Your task to perform on an android device: turn off location history Image 0: 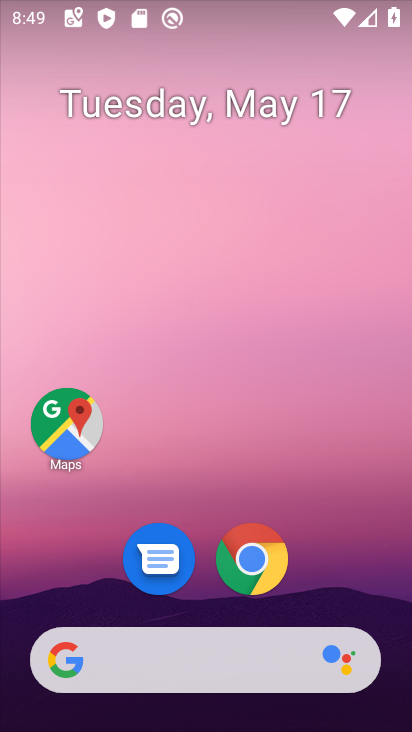
Step 0: drag from (227, 693) to (221, 148)
Your task to perform on an android device: turn off location history Image 1: 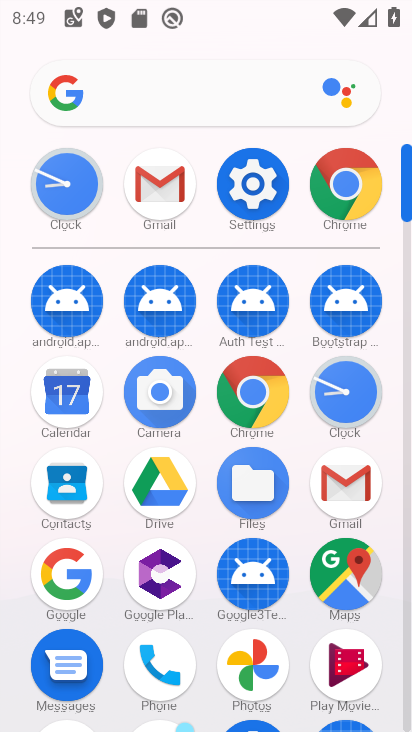
Step 1: click (257, 178)
Your task to perform on an android device: turn off location history Image 2: 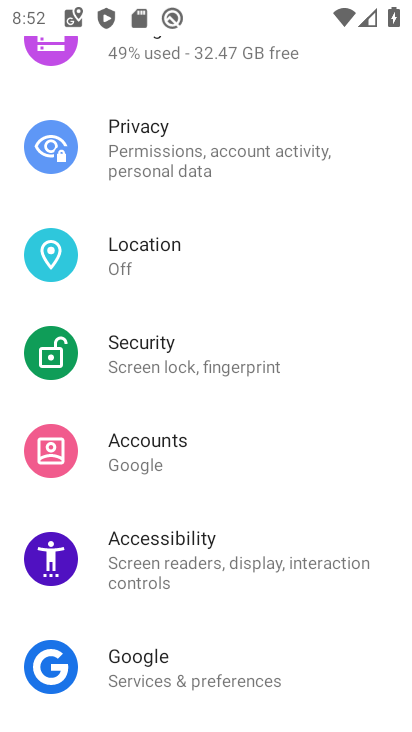
Step 2: click (137, 263)
Your task to perform on an android device: turn off location history Image 3: 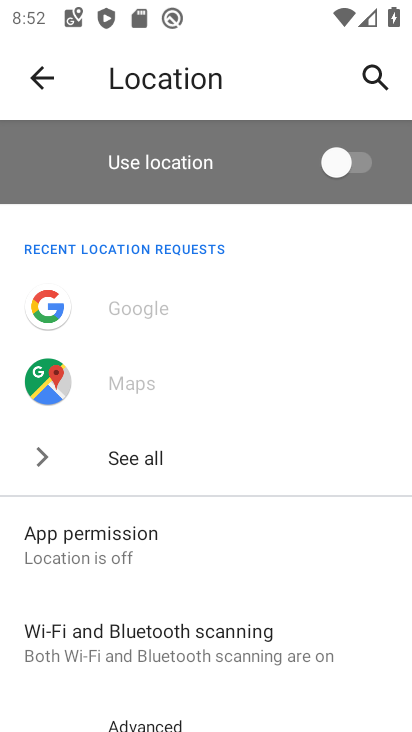
Step 3: drag from (207, 673) to (159, 254)
Your task to perform on an android device: turn off location history Image 4: 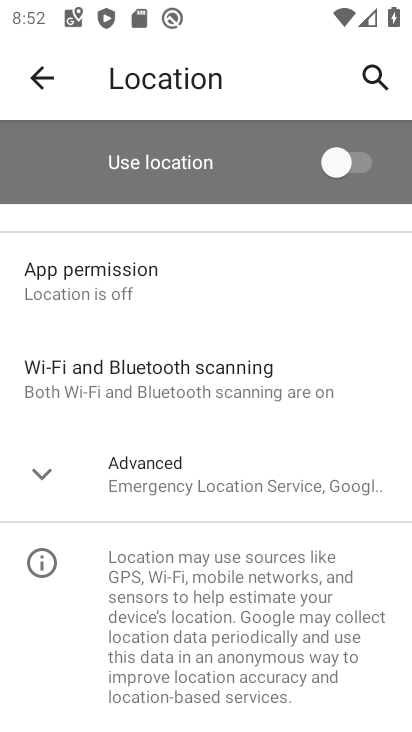
Step 4: click (231, 464)
Your task to perform on an android device: turn off location history Image 5: 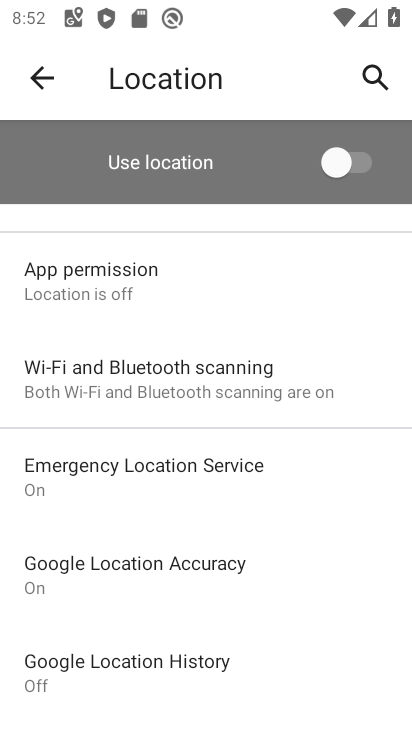
Step 5: click (219, 671)
Your task to perform on an android device: turn off location history Image 6: 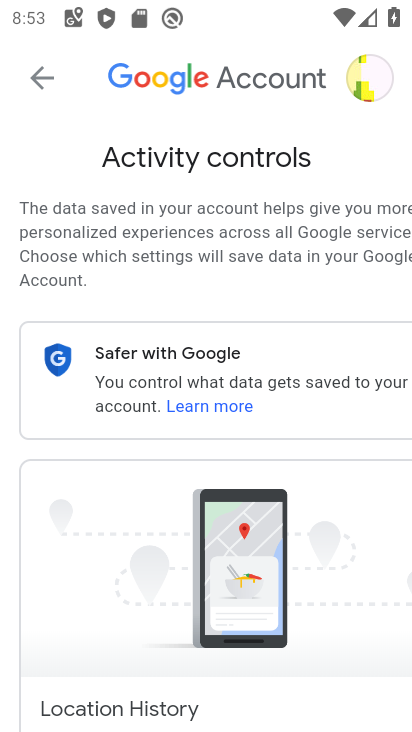
Step 6: drag from (306, 525) to (338, 64)
Your task to perform on an android device: turn off location history Image 7: 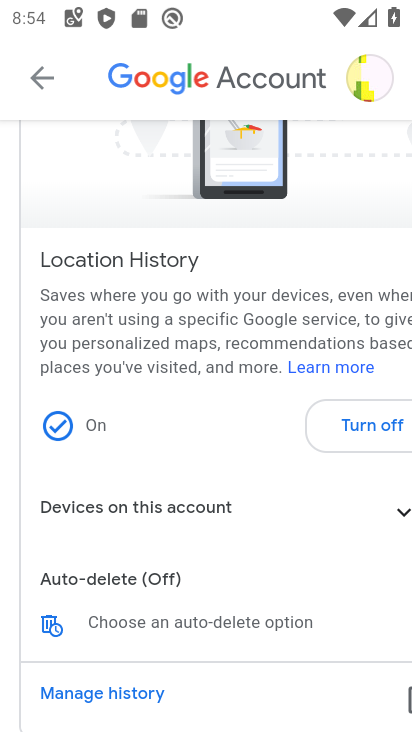
Step 7: click (345, 417)
Your task to perform on an android device: turn off location history Image 8: 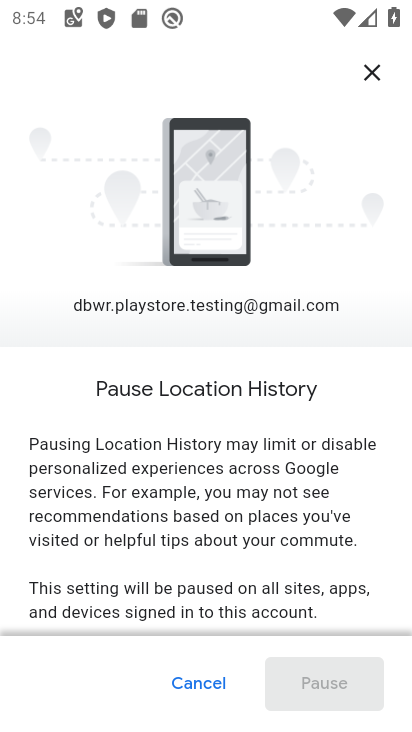
Step 8: drag from (211, 491) to (189, 3)
Your task to perform on an android device: turn off location history Image 9: 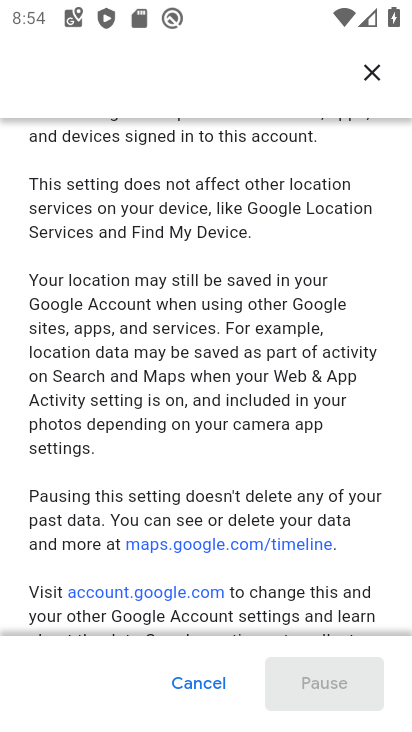
Step 9: drag from (267, 583) to (271, 10)
Your task to perform on an android device: turn off location history Image 10: 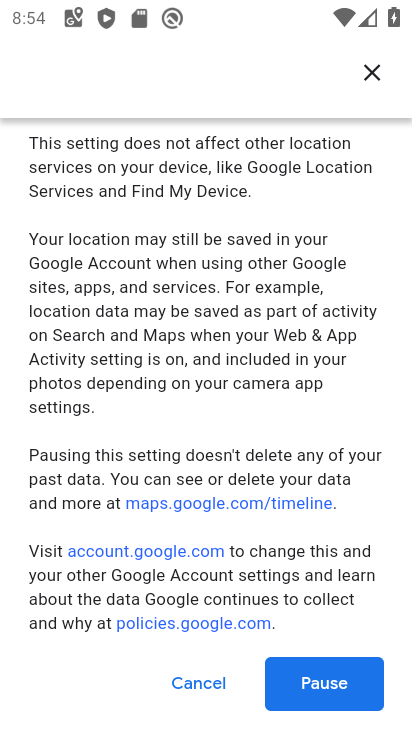
Step 10: click (320, 682)
Your task to perform on an android device: turn off location history Image 11: 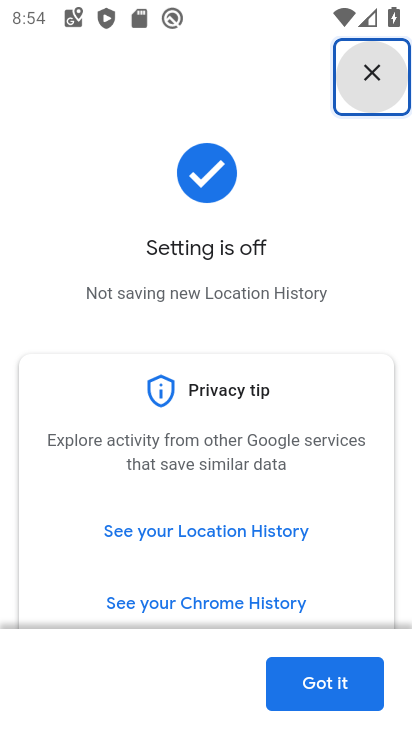
Step 11: click (309, 693)
Your task to perform on an android device: turn off location history Image 12: 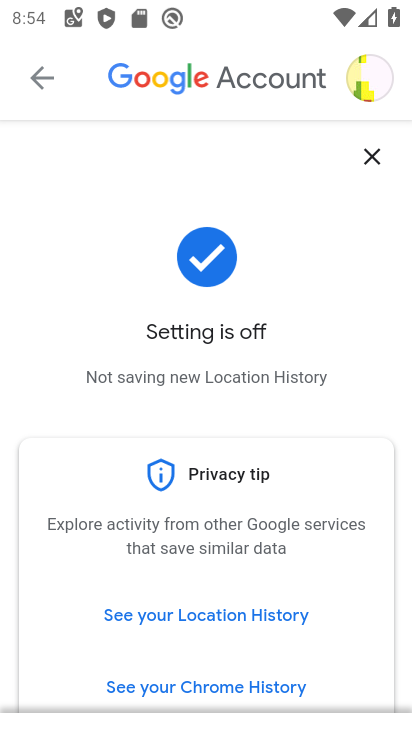
Step 12: task complete